Your task to perform on an android device: find which apps use the phone's location Image 0: 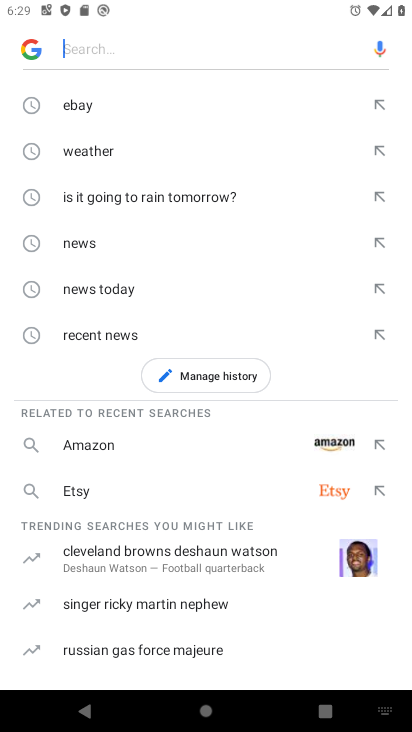
Step 0: press home button
Your task to perform on an android device: find which apps use the phone's location Image 1: 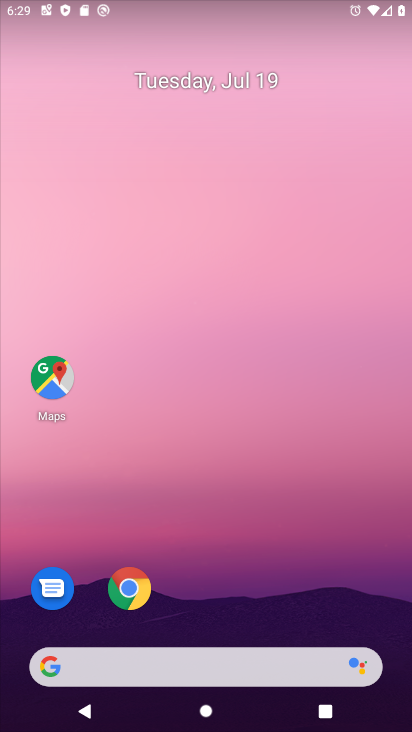
Step 1: drag from (189, 621) to (165, 0)
Your task to perform on an android device: find which apps use the phone's location Image 2: 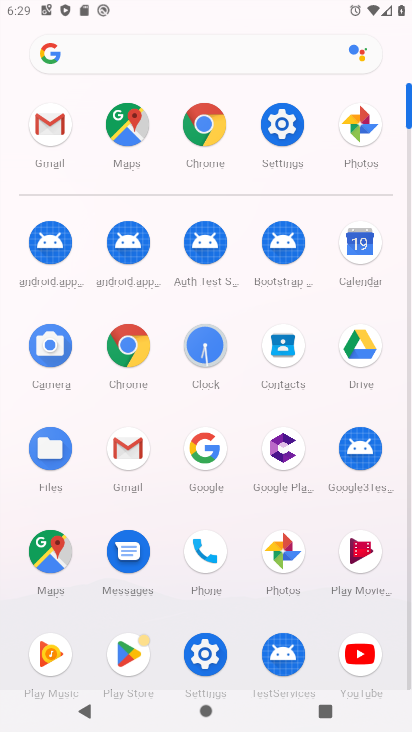
Step 2: click (281, 139)
Your task to perform on an android device: find which apps use the phone's location Image 3: 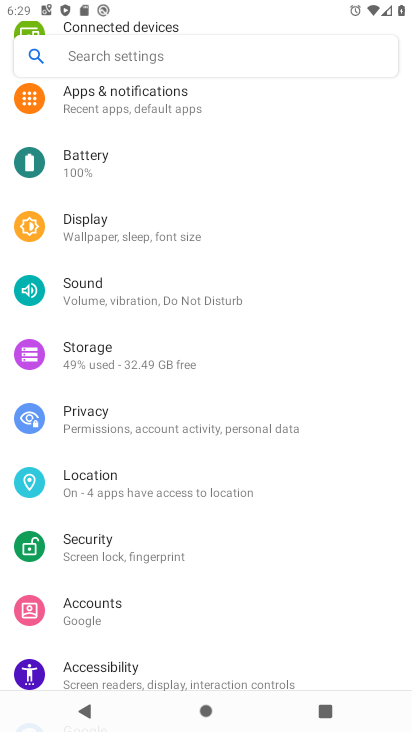
Step 3: click (91, 501)
Your task to perform on an android device: find which apps use the phone's location Image 4: 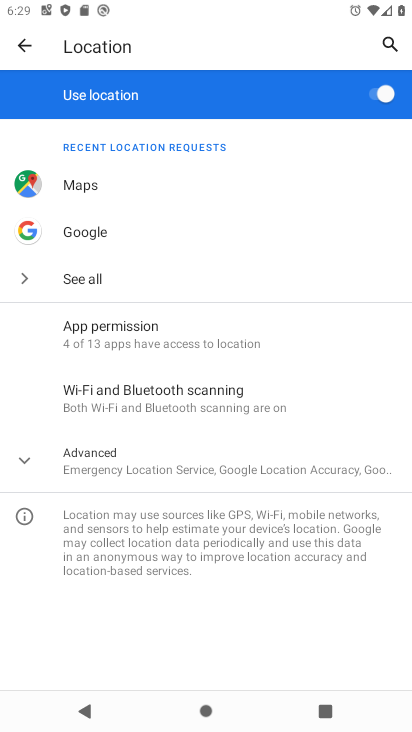
Step 4: click (90, 269)
Your task to perform on an android device: find which apps use the phone's location Image 5: 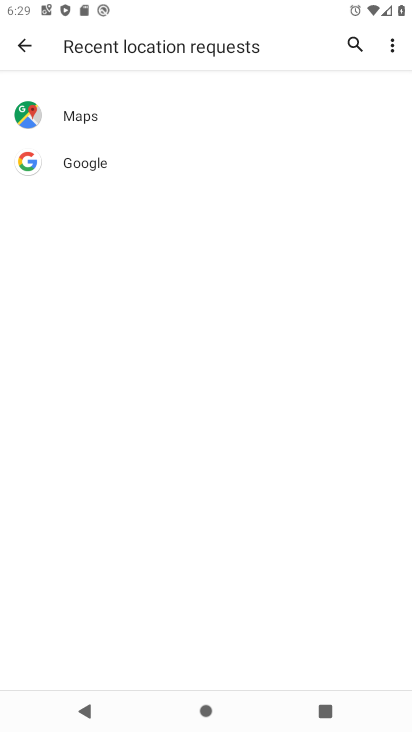
Step 5: task complete